Your task to perform on an android device: turn off smart reply in the gmail app Image 0: 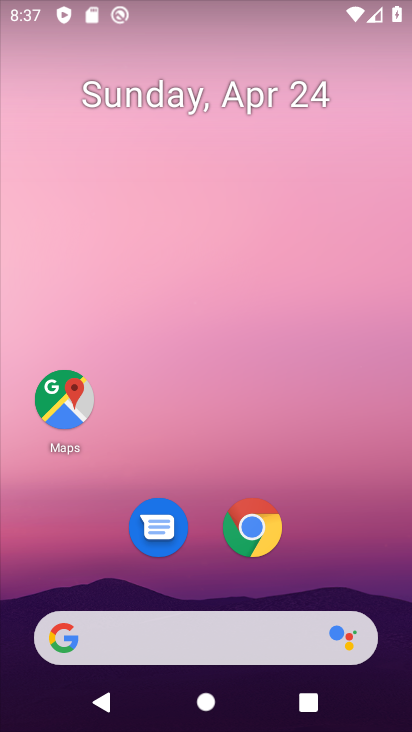
Step 0: drag from (355, 596) to (367, 0)
Your task to perform on an android device: turn off smart reply in the gmail app Image 1: 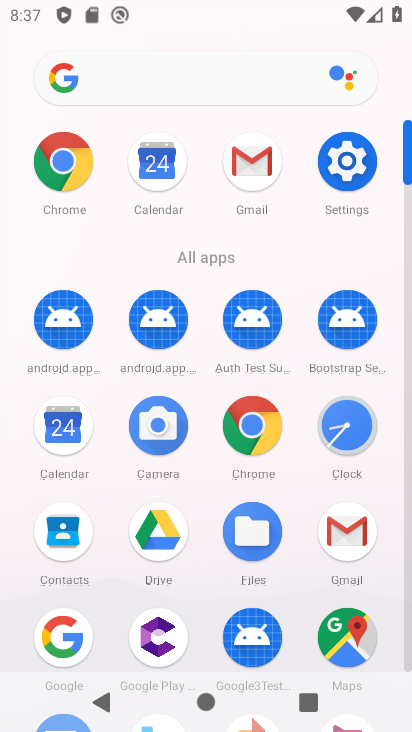
Step 1: click (247, 181)
Your task to perform on an android device: turn off smart reply in the gmail app Image 2: 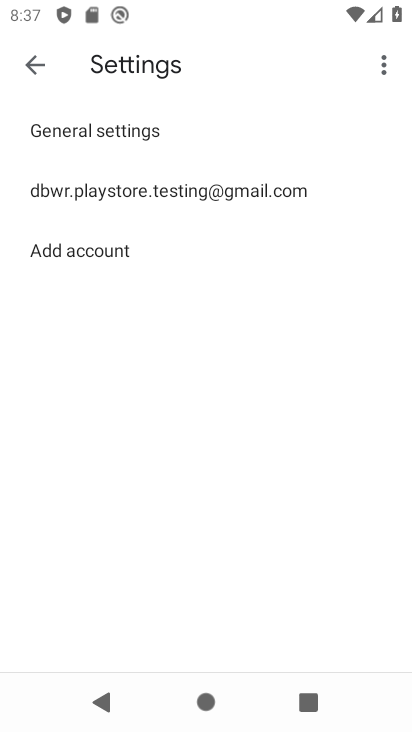
Step 2: click (133, 190)
Your task to perform on an android device: turn off smart reply in the gmail app Image 3: 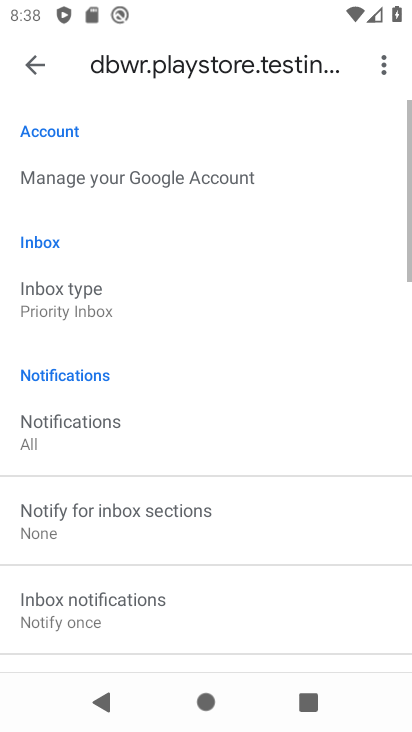
Step 3: drag from (263, 596) to (266, 129)
Your task to perform on an android device: turn off smart reply in the gmail app Image 4: 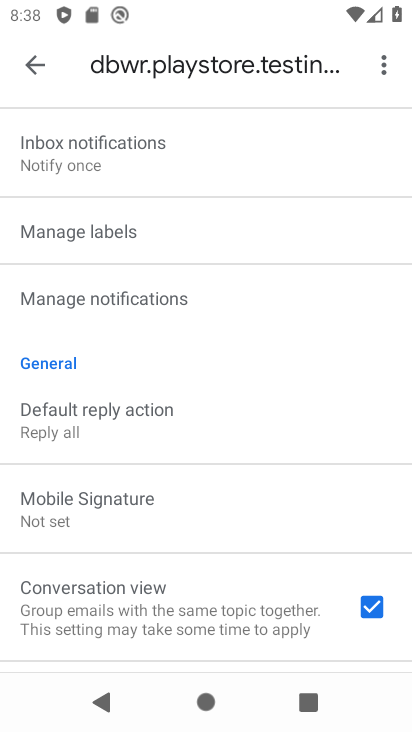
Step 4: drag from (213, 501) to (211, 150)
Your task to perform on an android device: turn off smart reply in the gmail app Image 5: 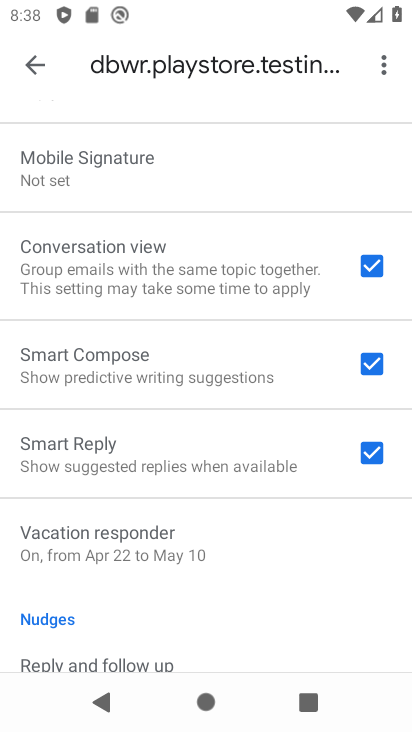
Step 5: drag from (208, 556) to (210, 331)
Your task to perform on an android device: turn off smart reply in the gmail app Image 6: 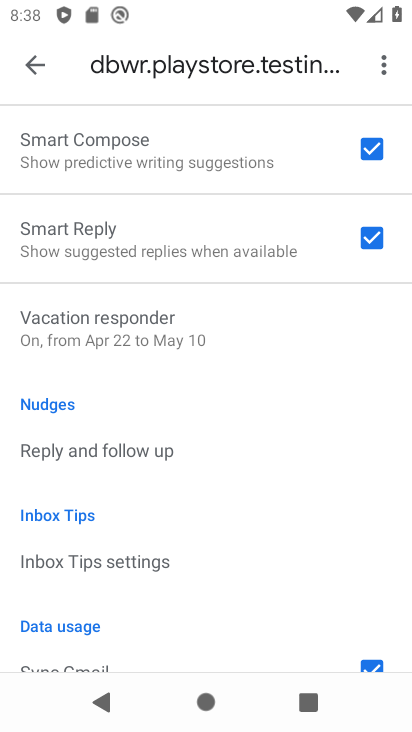
Step 6: click (361, 237)
Your task to perform on an android device: turn off smart reply in the gmail app Image 7: 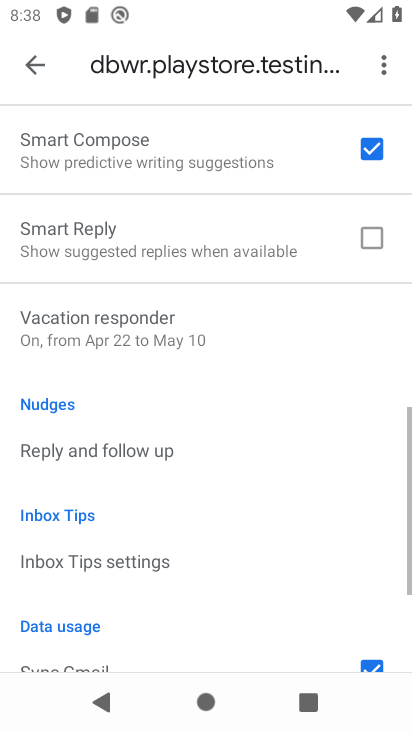
Step 7: task complete